Your task to perform on an android device: What's a good restaurant near me? Image 0: 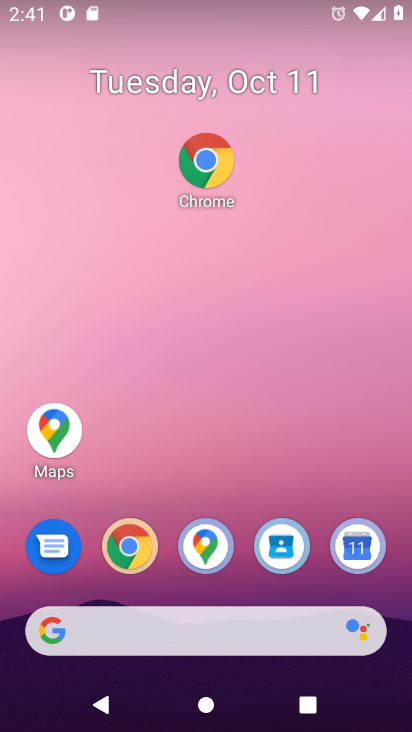
Step 0: click (222, 168)
Your task to perform on an android device: What's a good restaurant near me? Image 1: 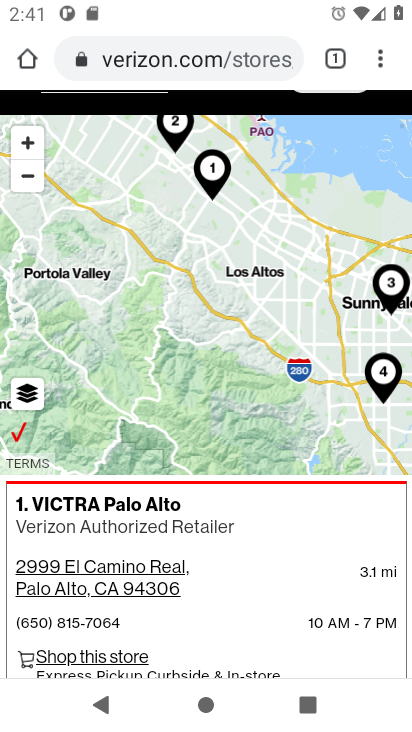
Step 1: click (193, 60)
Your task to perform on an android device: What's a good restaurant near me? Image 2: 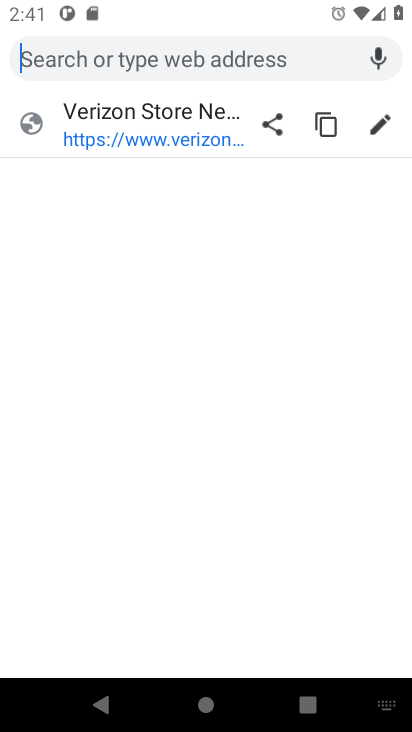
Step 2: type "good restaurant near me"
Your task to perform on an android device: What's a good restaurant near me? Image 3: 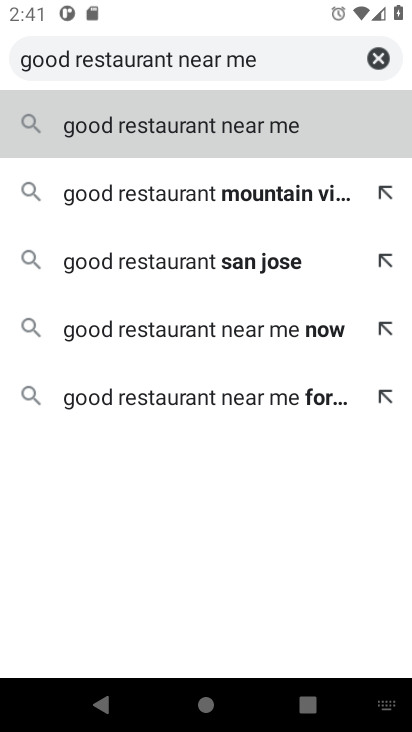
Step 3: press enter
Your task to perform on an android device: What's a good restaurant near me? Image 4: 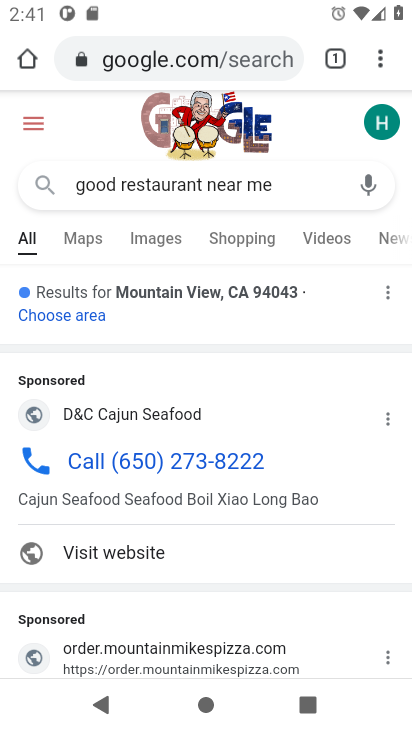
Step 4: task complete